Your task to perform on an android device: turn notification dots off Image 0: 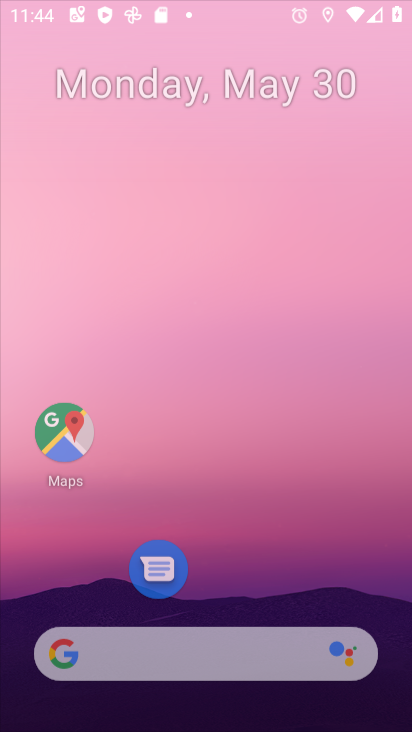
Step 0: click (190, 665)
Your task to perform on an android device: turn notification dots off Image 1: 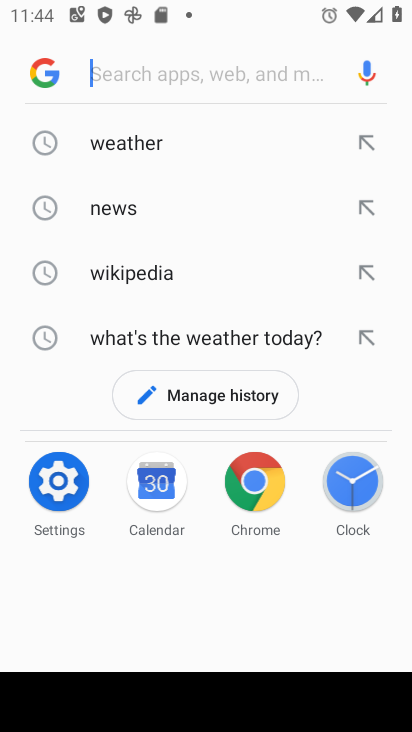
Step 1: task complete